Your task to perform on an android device: Go to location settings Image 0: 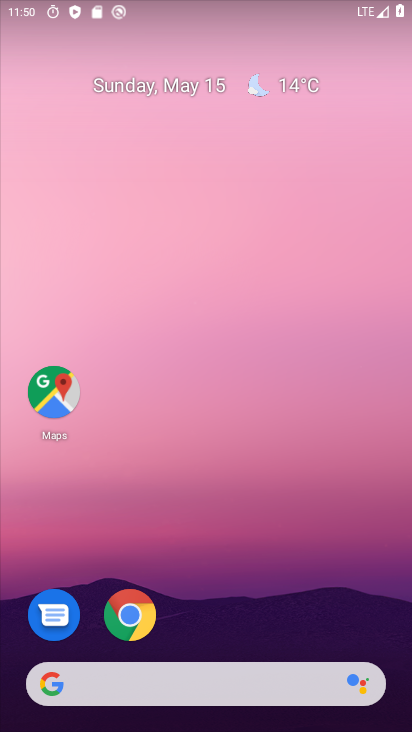
Step 0: drag from (309, 595) to (282, 79)
Your task to perform on an android device: Go to location settings Image 1: 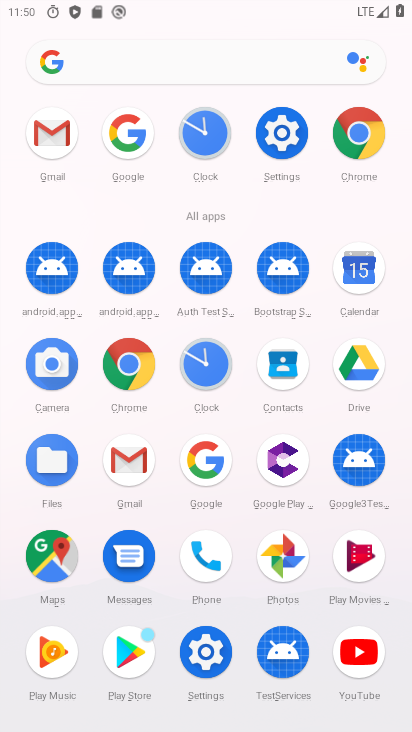
Step 1: click (289, 132)
Your task to perform on an android device: Go to location settings Image 2: 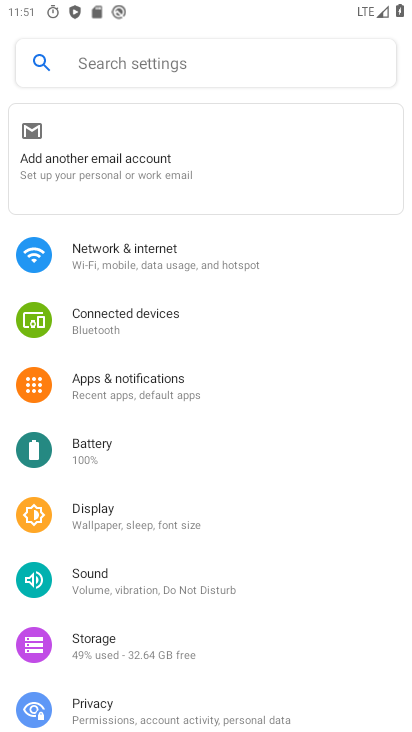
Step 2: drag from (193, 641) to (224, 241)
Your task to perform on an android device: Go to location settings Image 3: 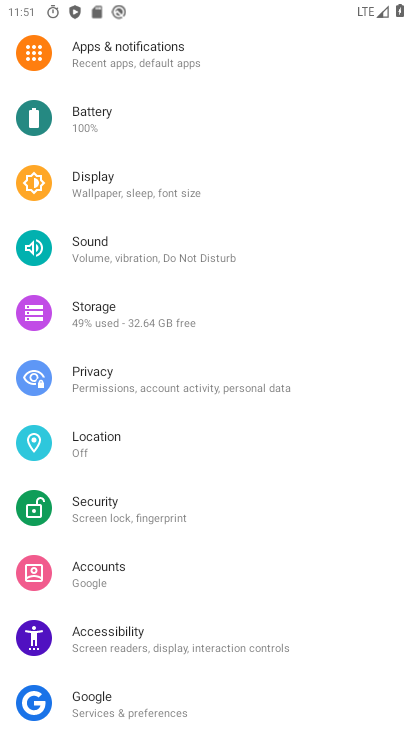
Step 3: click (93, 449)
Your task to perform on an android device: Go to location settings Image 4: 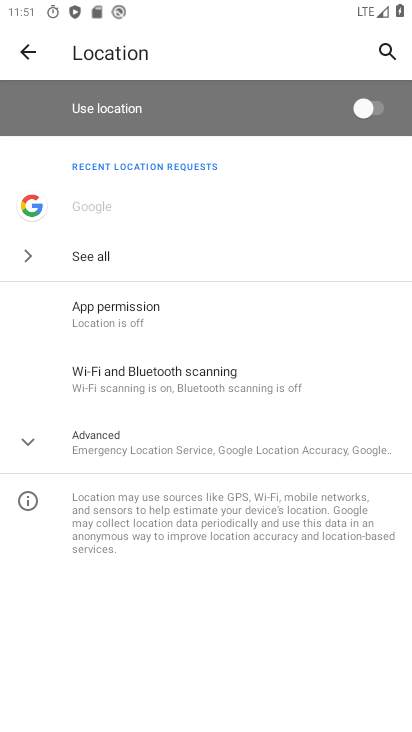
Step 4: task complete